Your task to perform on an android device: allow cookies in the chrome app Image 0: 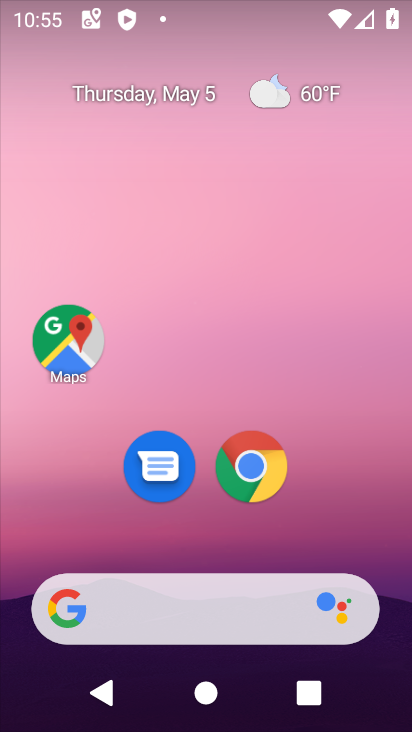
Step 0: click (277, 458)
Your task to perform on an android device: allow cookies in the chrome app Image 1: 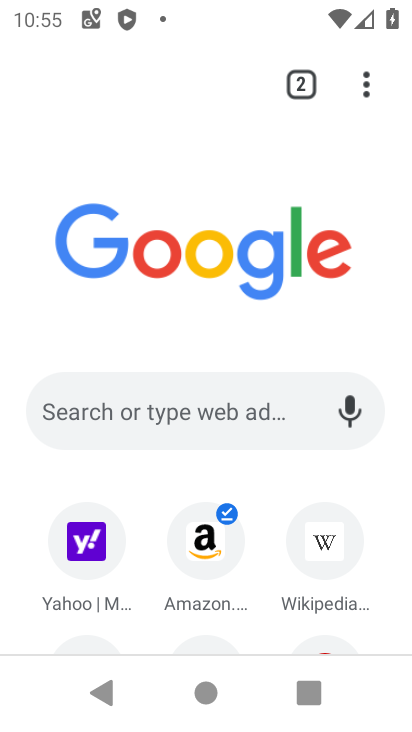
Step 1: click (371, 91)
Your task to perform on an android device: allow cookies in the chrome app Image 2: 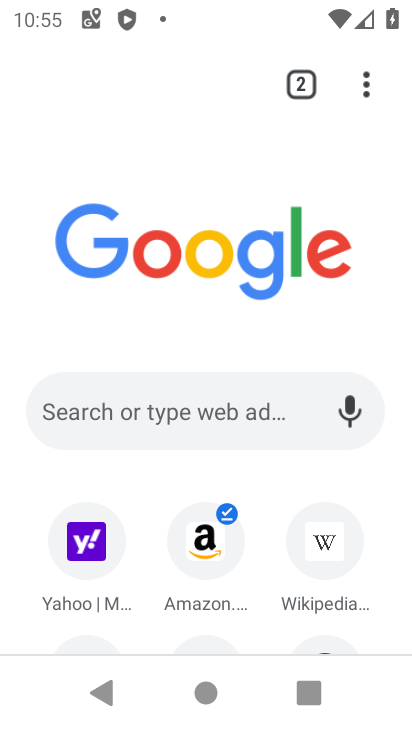
Step 2: click (366, 74)
Your task to perform on an android device: allow cookies in the chrome app Image 3: 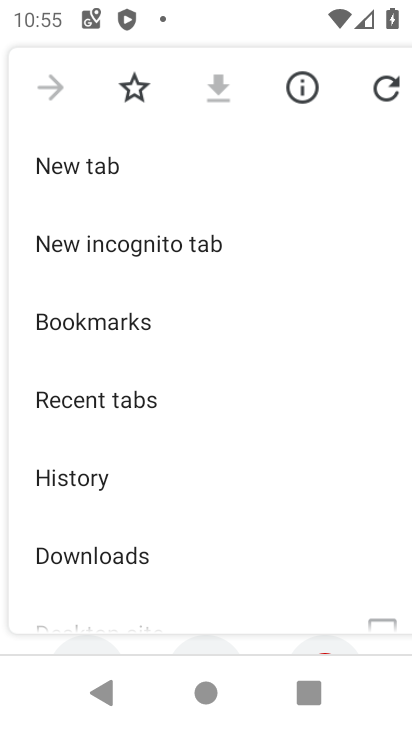
Step 3: drag from (102, 600) to (158, 184)
Your task to perform on an android device: allow cookies in the chrome app Image 4: 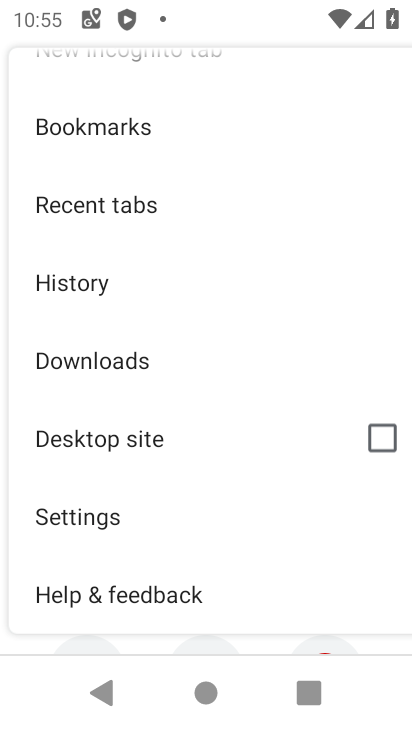
Step 4: click (93, 522)
Your task to perform on an android device: allow cookies in the chrome app Image 5: 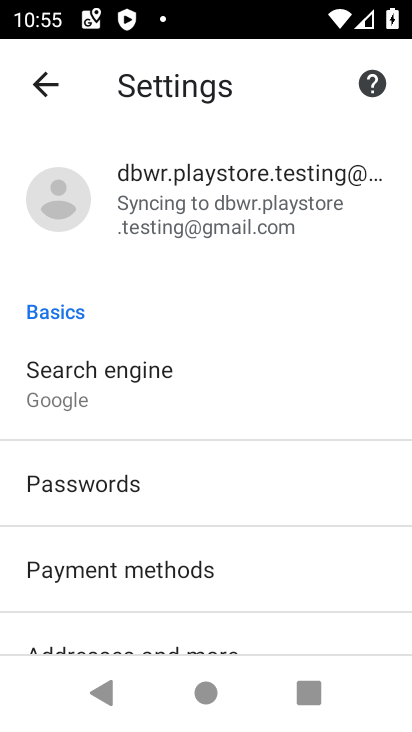
Step 5: drag from (99, 625) to (148, 195)
Your task to perform on an android device: allow cookies in the chrome app Image 6: 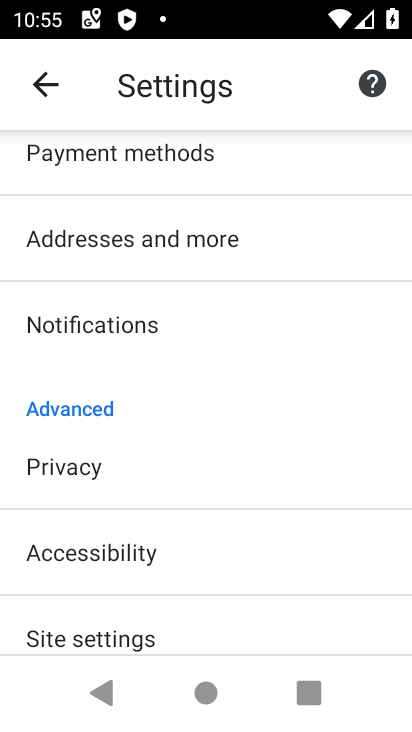
Step 6: click (96, 643)
Your task to perform on an android device: allow cookies in the chrome app Image 7: 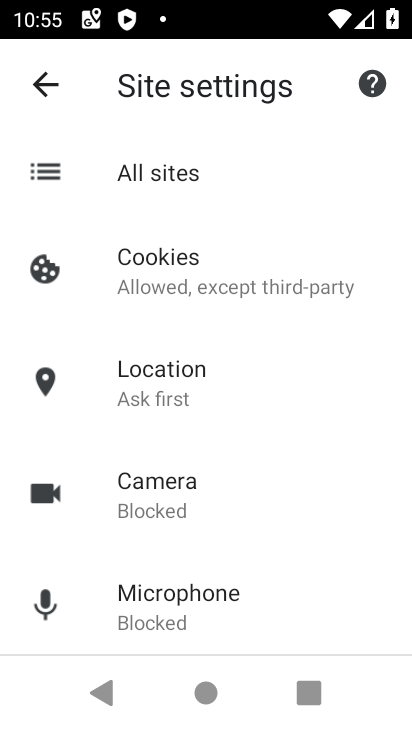
Step 7: click (184, 285)
Your task to perform on an android device: allow cookies in the chrome app Image 8: 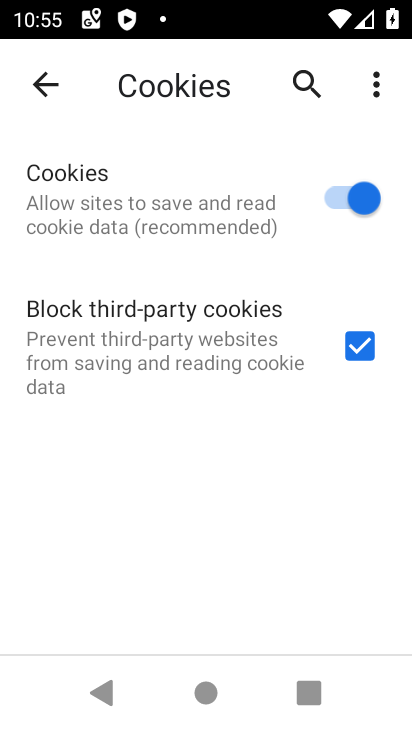
Step 8: task complete